Your task to perform on an android device: What is the recent news? Image 0: 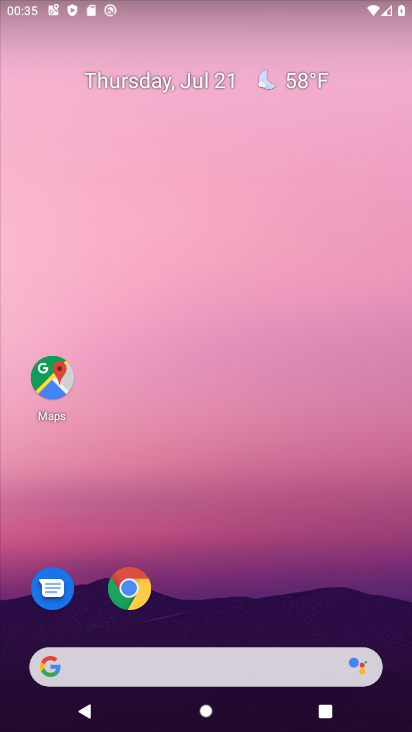
Step 0: drag from (257, 617) to (286, 31)
Your task to perform on an android device: What is the recent news? Image 1: 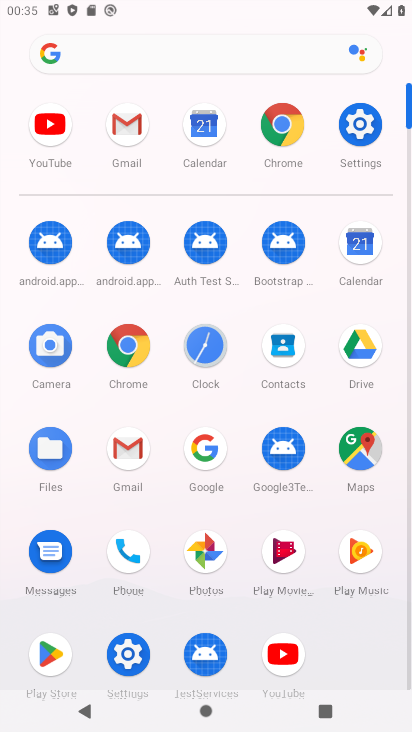
Step 1: click (185, 48)
Your task to perform on an android device: What is the recent news? Image 2: 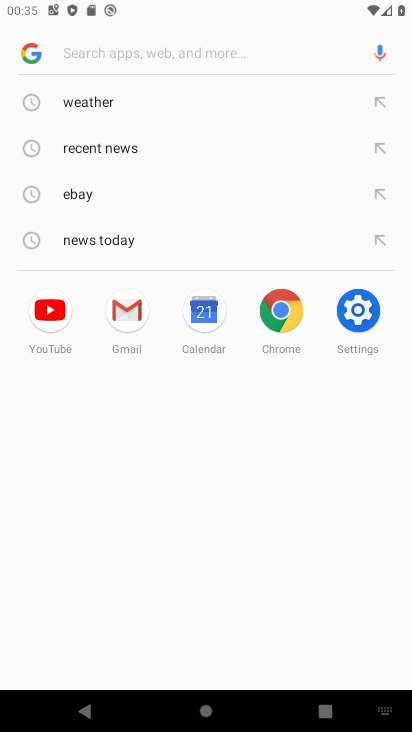
Step 2: type "recent news ?"
Your task to perform on an android device: What is the recent news? Image 3: 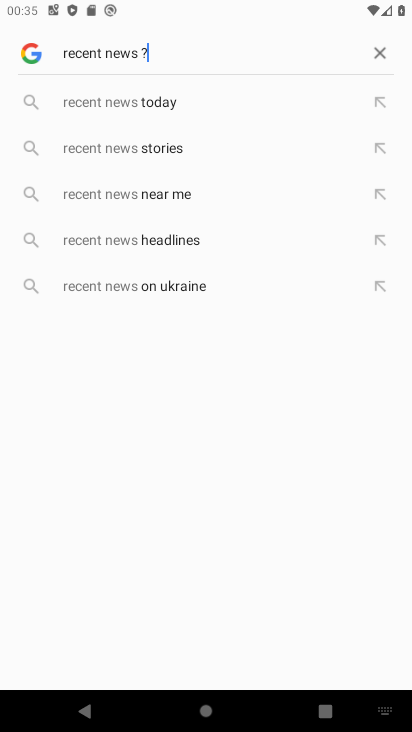
Step 3: click (128, 109)
Your task to perform on an android device: What is the recent news? Image 4: 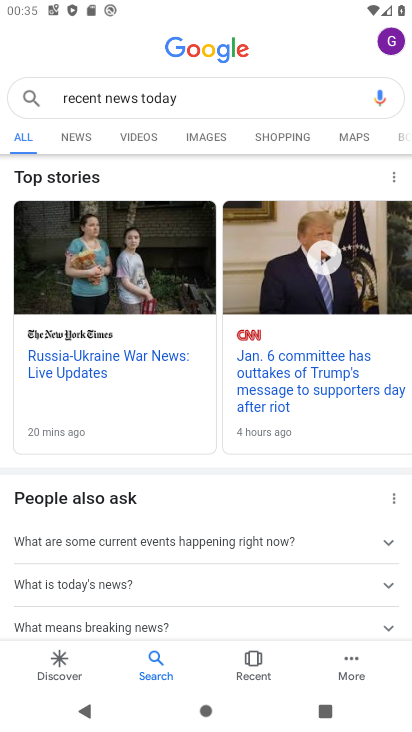
Step 4: task complete